Your task to perform on an android device: check data usage Image 0: 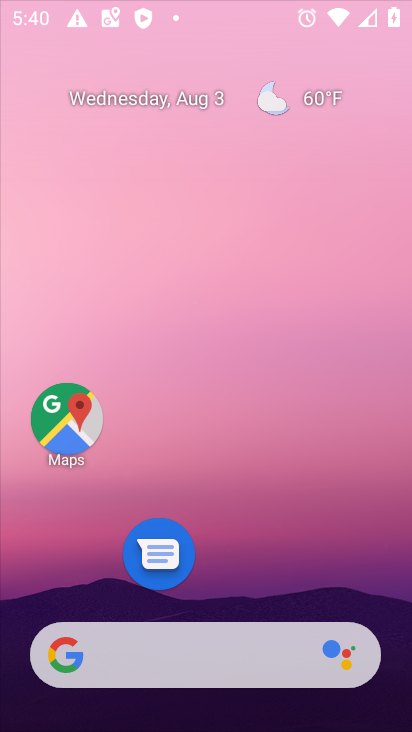
Step 0: drag from (179, 588) to (178, 213)
Your task to perform on an android device: check data usage Image 1: 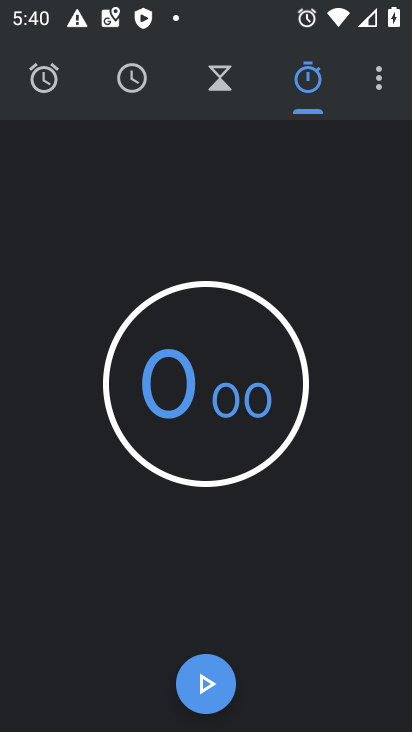
Step 1: press home button
Your task to perform on an android device: check data usage Image 2: 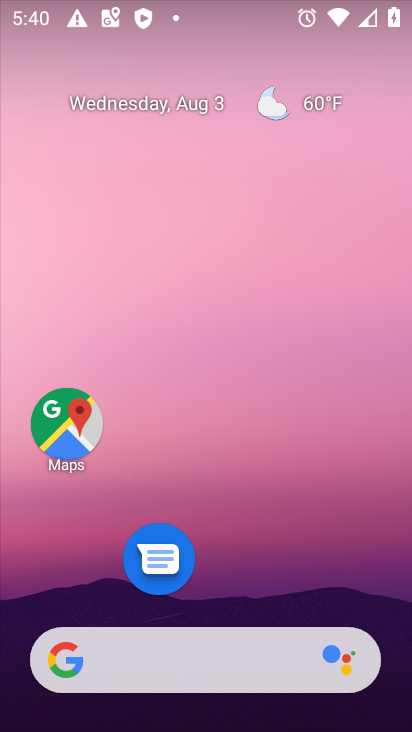
Step 2: drag from (246, 638) to (271, 198)
Your task to perform on an android device: check data usage Image 3: 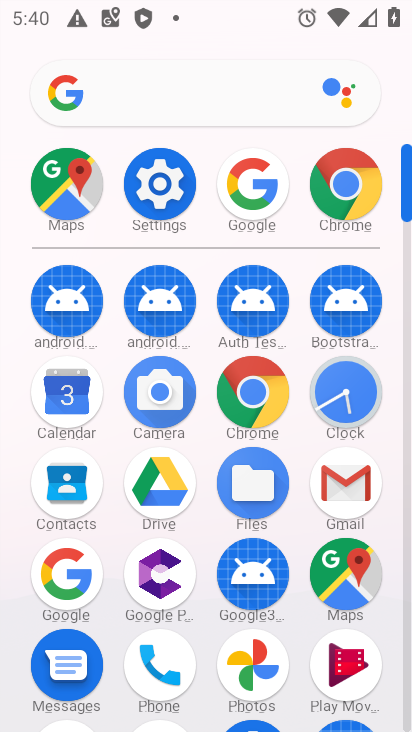
Step 3: click (183, 177)
Your task to perform on an android device: check data usage Image 4: 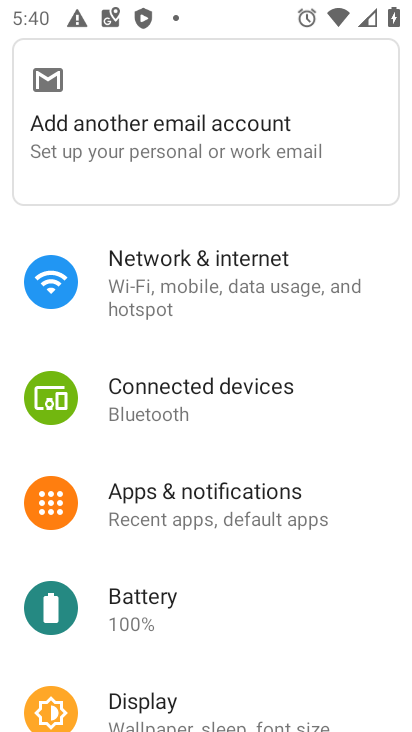
Step 4: drag from (205, 276) to (288, 276)
Your task to perform on an android device: check data usage Image 5: 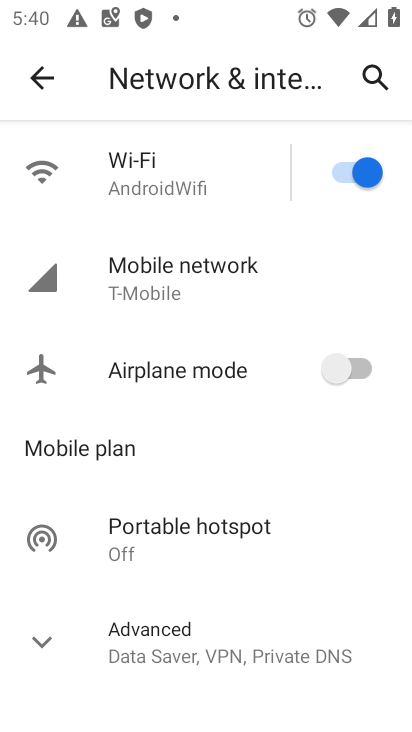
Step 5: click (164, 283)
Your task to perform on an android device: check data usage Image 6: 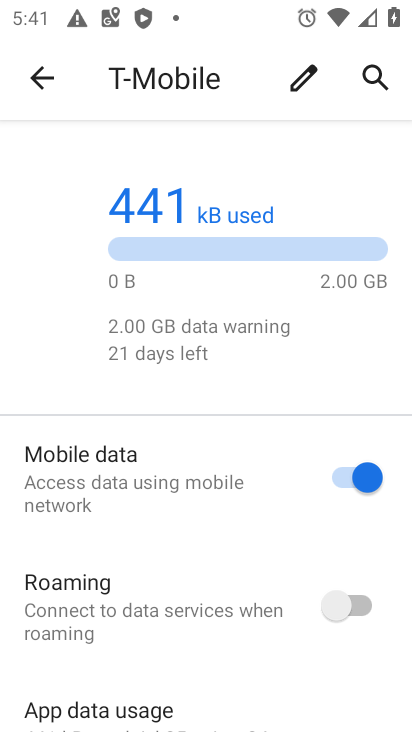
Step 6: task complete